Your task to perform on an android device: Open Google Chrome and open the bookmarks view Image 0: 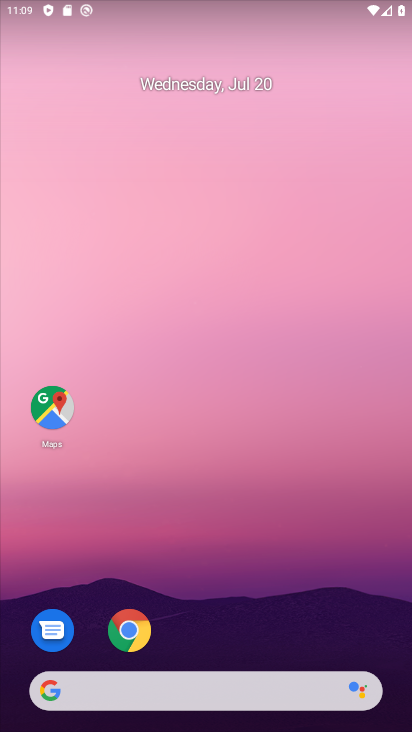
Step 0: drag from (254, 692) to (330, 195)
Your task to perform on an android device: Open Google Chrome and open the bookmarks view Image 1: 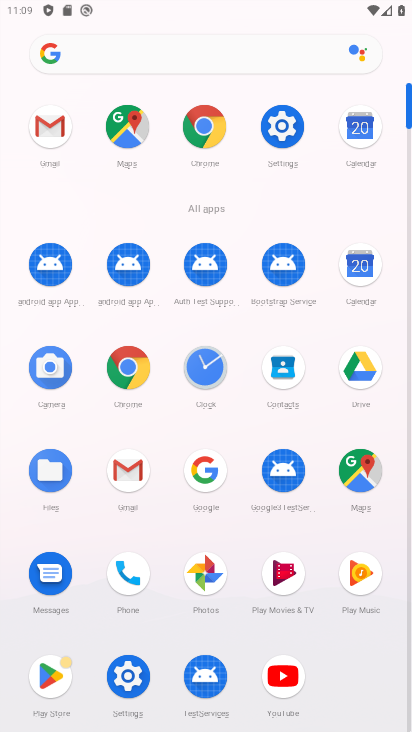
Step 1: click (208, 131)
Your task to perform on an android device: Open Google Chrome and open the bookmarks view Image 2: 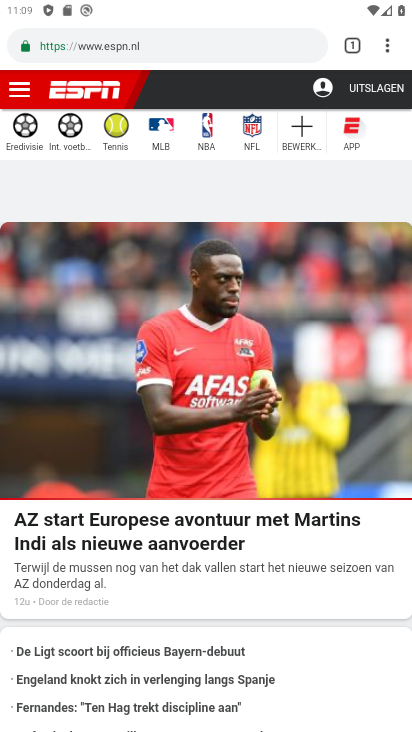
Step 2: click (390, 53)
Your task to perform on an android device: Open Google Chrome and open the bookmarks view Image 3: 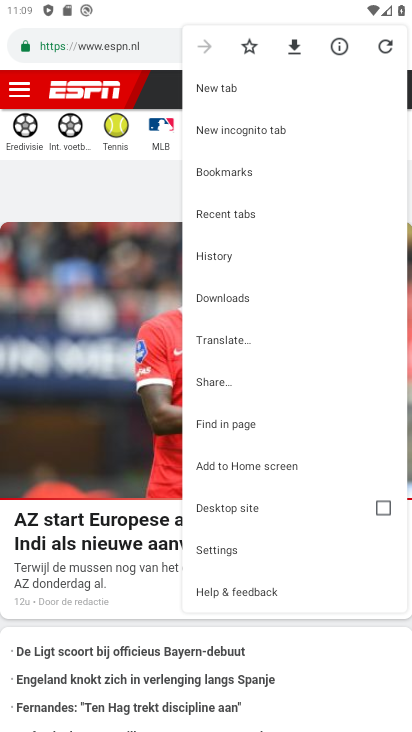
Step 3: click (227, 174)
Your task to perform on an android device: Open Google Chrome and open the bookmarks view Image 4: 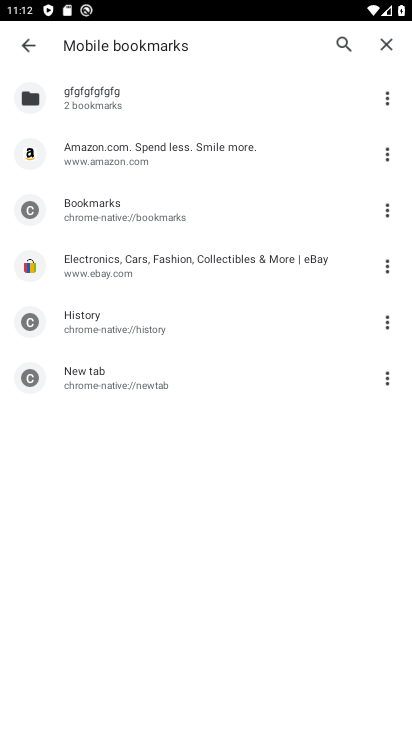
Step 4: task complete